Your task to perform on an android device: turn off location history Image 0: 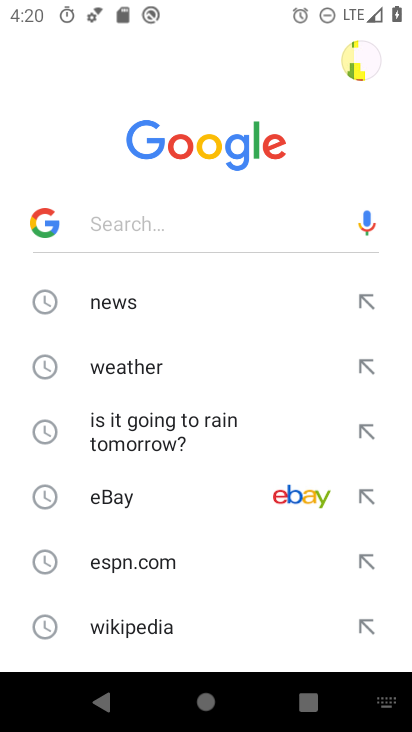
Step 0: press home button
Your task to perform on an android device: turn off location history Image 1: 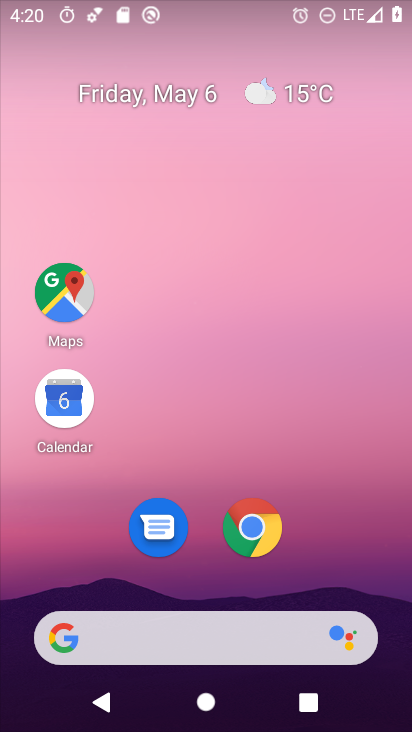
Step 1: drag from (331, 513) to (313, 119)
Your task to perform on an android device: turn off location history Image 2: 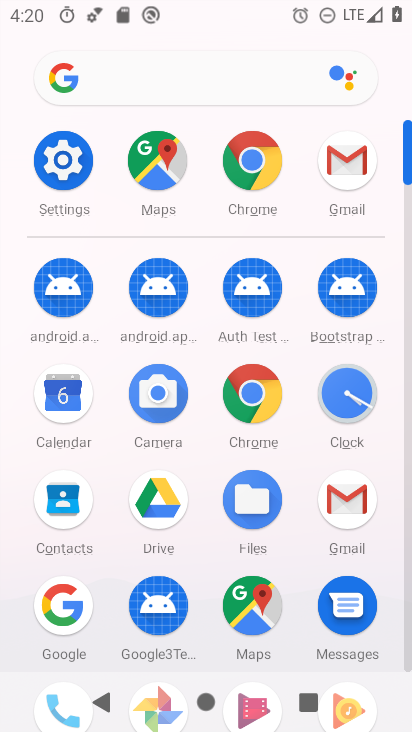
Step 2: click (76, 153)
Your task to perform on an android device: turn off location history Image 3: 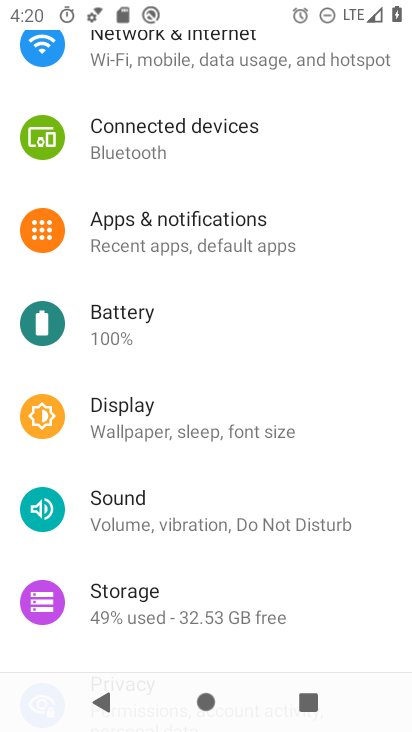
Step 3: drag from (234, 192) to (257, 527)
Your task to perform on an android device: turn off location history Image 4: 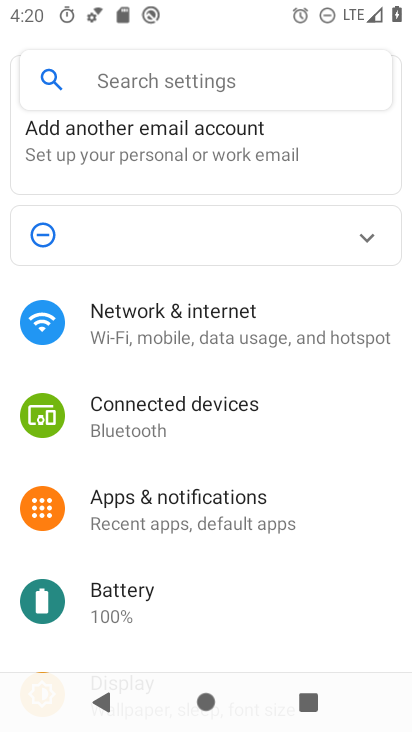
Step 4: drag from (257, 525) to (277, 136)
Your task to perform on an android device: turn off location history Image 5: 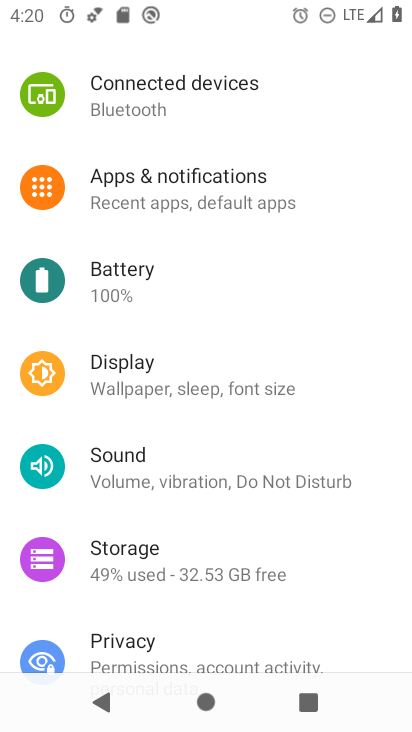
Step 5: drag from (219, 502) to (272, 147)
Your task to perform on an android device: turn off location history Image 6: 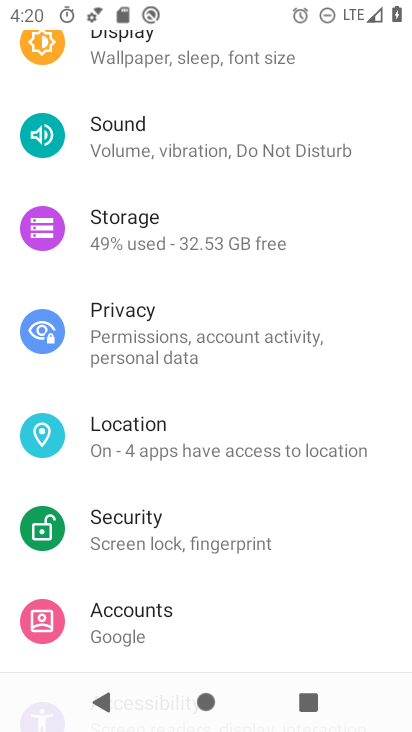
Step 6: click (246, 433)
Your task to perform on an android device: turn off location history Image 7: 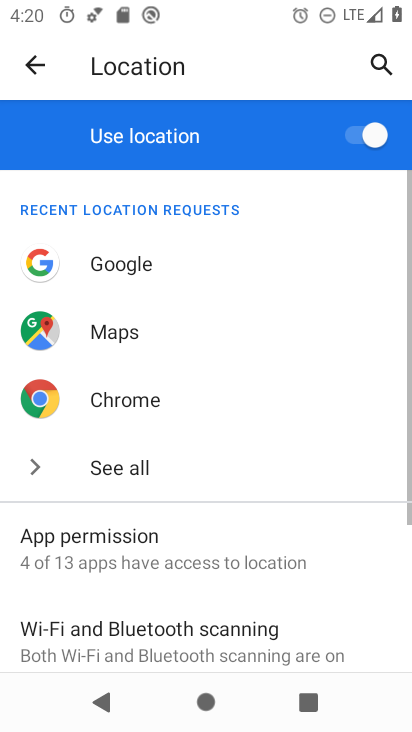
Step 7: drag from (252, 601) to (207, 265)
Your task to perform on an android device: turn off location history Image 8: 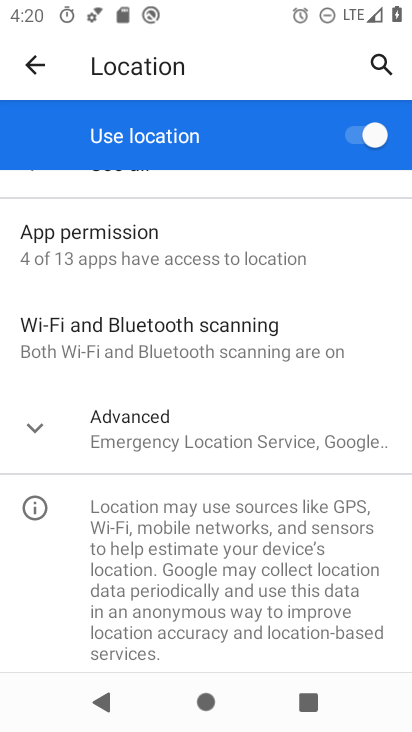
Step 8: click (185, 427)
Your task to perform on an android device: turn off location history Image 9: 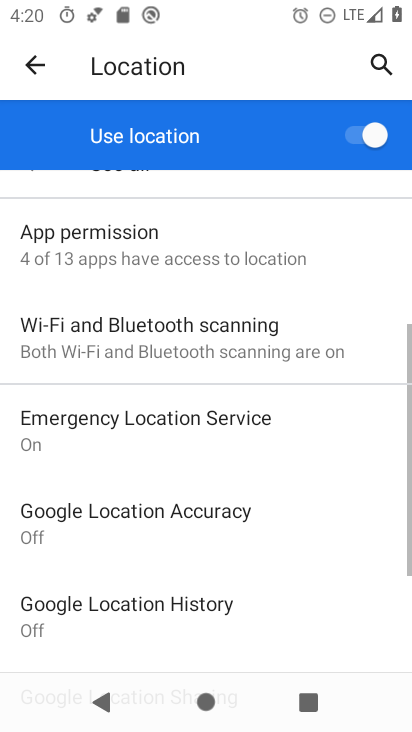
Step 9: drag from (294, 520) to (347, 276)
Your task to perform on an android device: turn off location history Image 10: 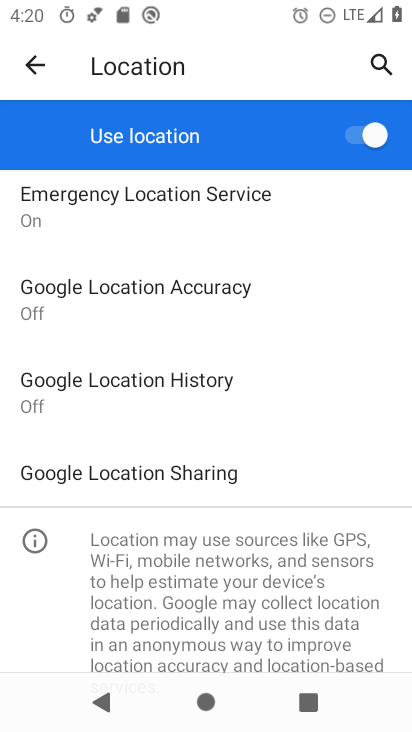
Step 10: click (206, 389)
Your task to perform on an android device: turn off location history Image 11: 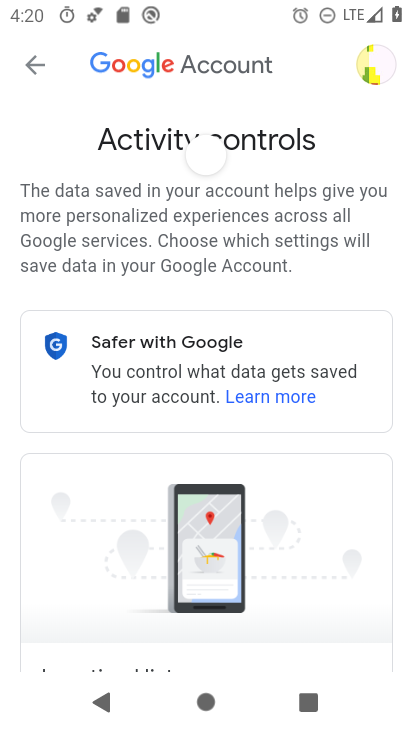
Step 11: drag from (302, 502) to (297, 10)
Your task to perform on an android device: turn off location history Image 12: 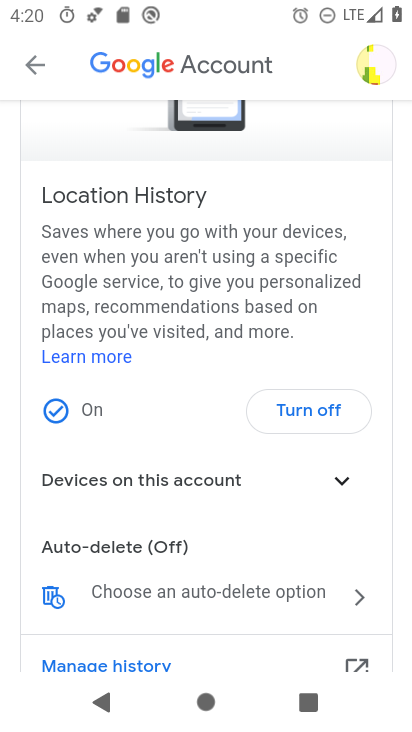
Step 12: click (297, 421)
Your task to perform on an android device: turn off location history Image 13: 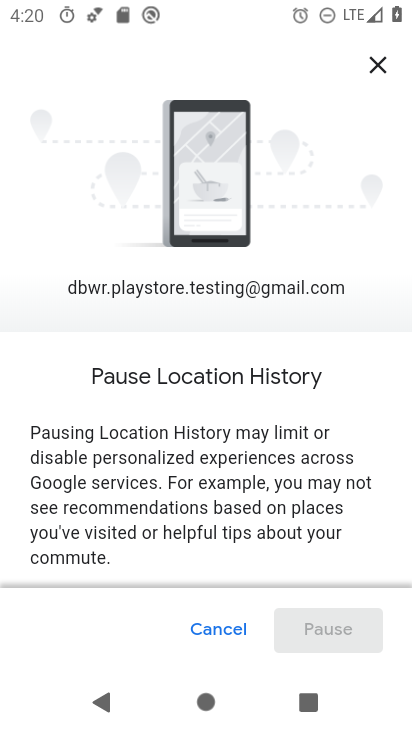
Step 13: drag from (247, 546) to (279, 56)
Your task to perform on an android device: turn off location history Image 14: 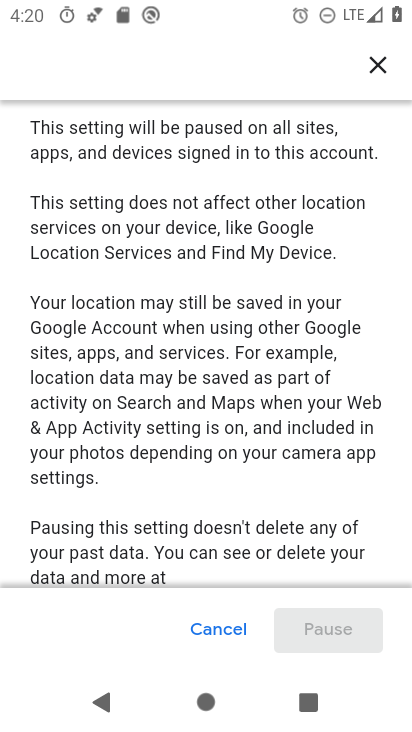
Step 14: drag from (288, 504) to (256, 76)
Your task to perform on an android device: turn off location history Image 15: 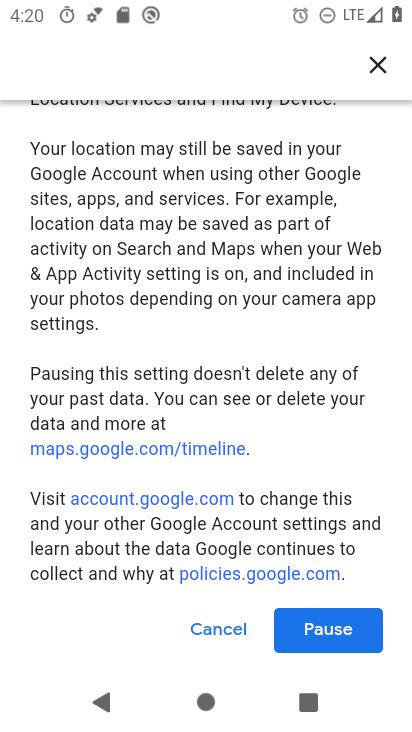
Step 15: click (338, 627)
Your task to perform on an android device: turn off location history Image 16: 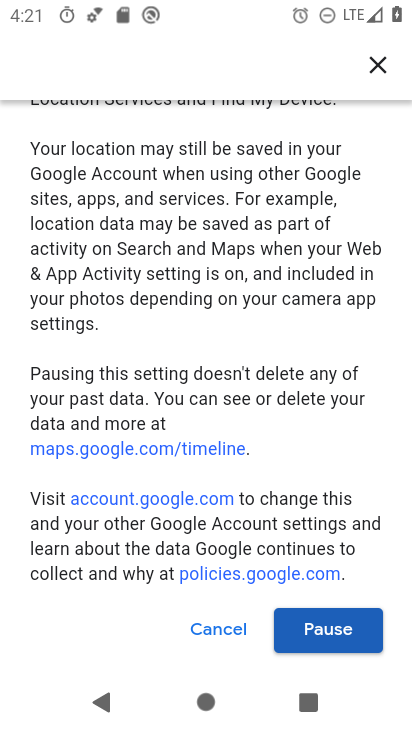
Step 16: click (350, 623)
Your task to perform on an android device: turn off location history Image 17: 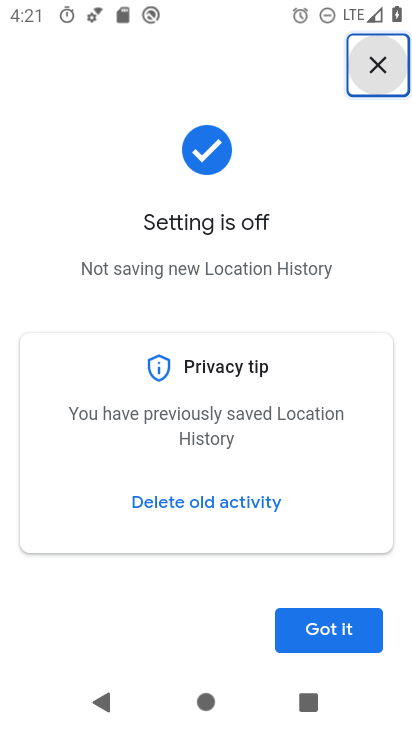
Step 17: task complete